Your task to perform on an android device: Show me popular games on the Play Store Image 0: 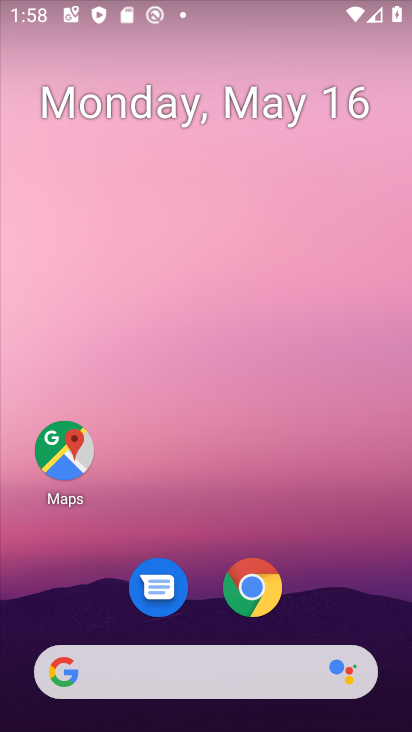
Step 0: drag from (340, 673) to (324, 210)
Your task to perform on an android device: Show me popular games on the Play Store Image 1: 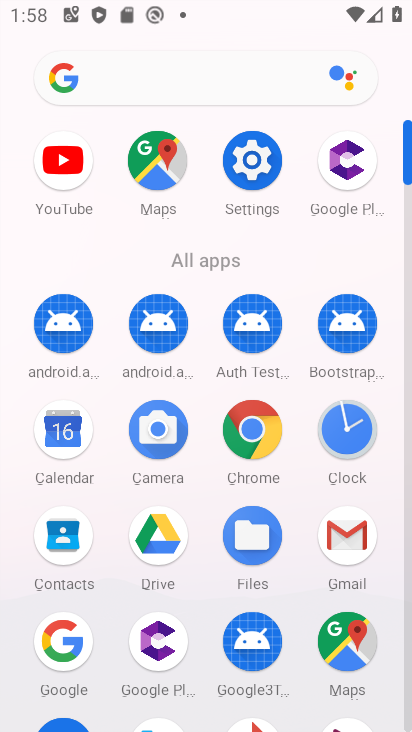
Step 1: drag from (194, 526) to (168, 83)
Your task to perform on an android device: Show me popular games on the Play Store Image 2: 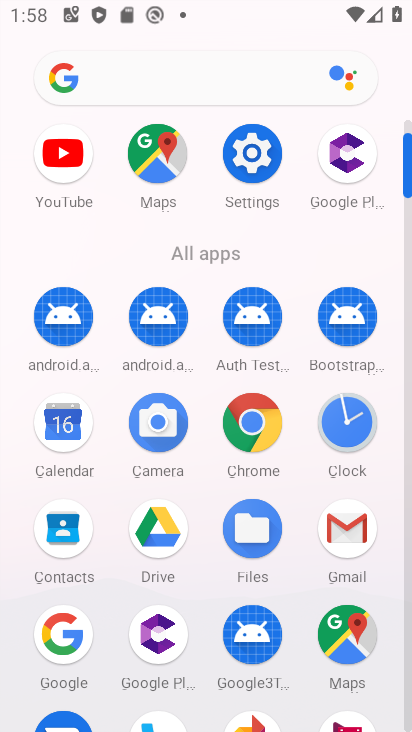
Step 2: drag from (197, 576) to (253, 28)
Your task to perform on an android device: Show me popular games on the Play Store Image 3: 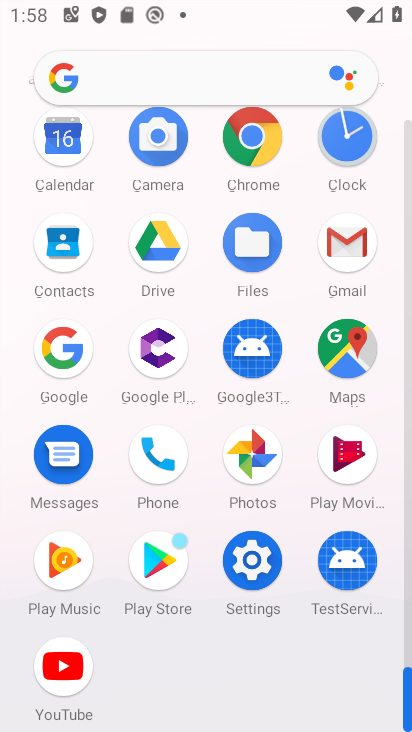
Step 3: click (151, 569)
Your task to perform on an android device: Show me popular games on the Play Store Image 4: 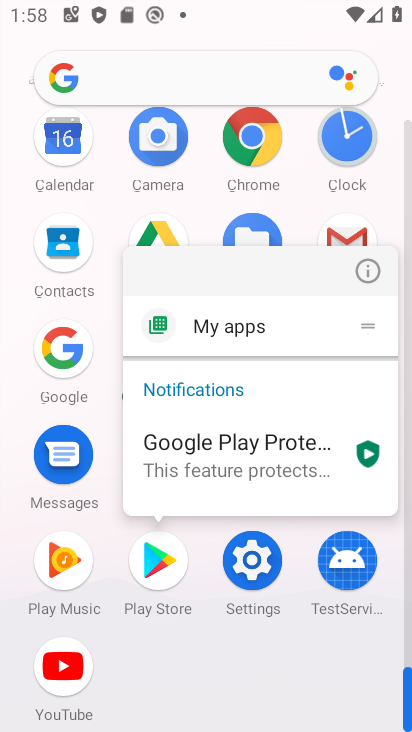
Step 4: click (151, 568)
Your task to perform on an android device: Show me popular games on the Play Store Image 5: 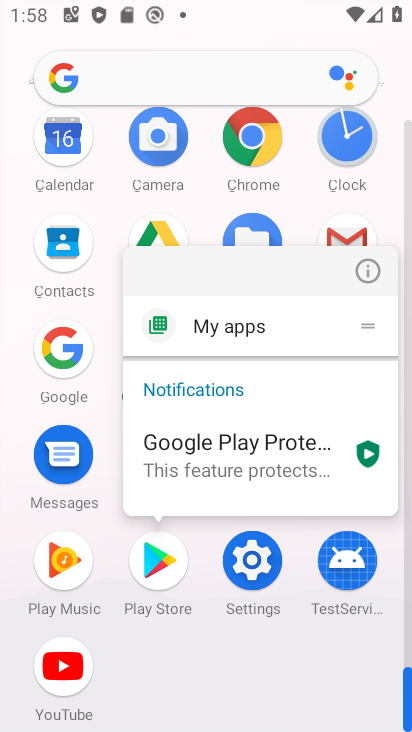
Step 5: click (151, 567)
Your task to perform on an android device: Show me popular games on the Play Store Image 6: 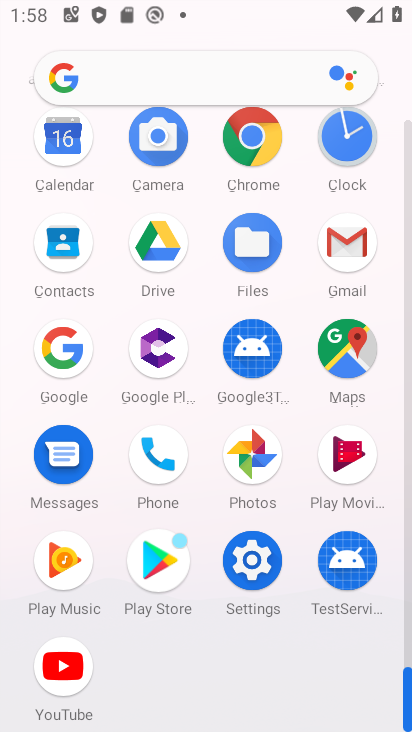
Step 6: click (151, 567)
Your task to perform on an android device: Show me popular games on the Play Store Image 7: 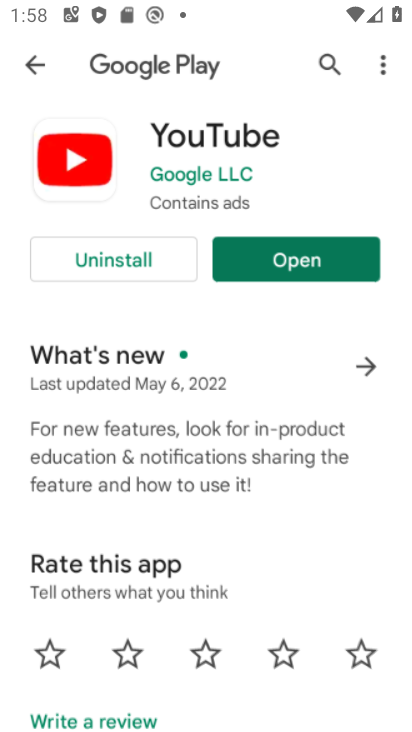
Step 7: click (151, 567)
Your task to perform on an android device: Show me popular games on the Play Store Image 8: 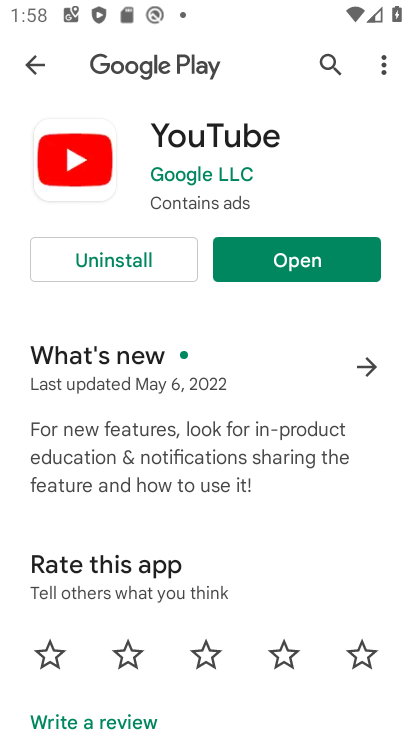
Step 8: click (277, 254)
Your task to perform on an android device: Show me popular games on the Play Store Image 9: 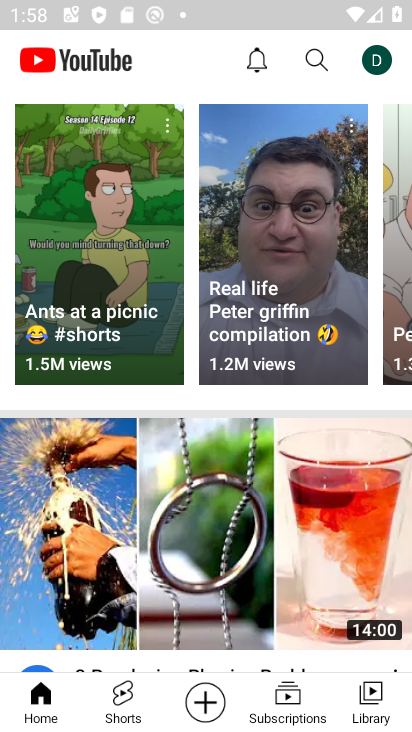
Step 9: drag from (221, 171) to (196, 102)
Your task to perform on an android device: Show me popular games on the Play Store Image 10: 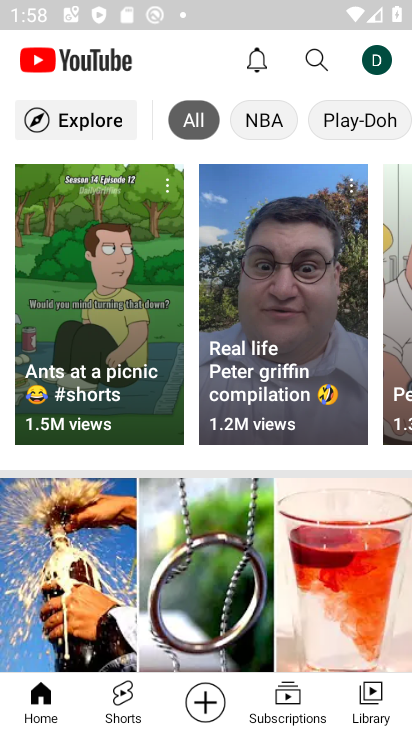
Step 10: drag from (240, 413) to (316, 184)
Your task to perform on an android device: Show me popular games on the Play Store Image 11: 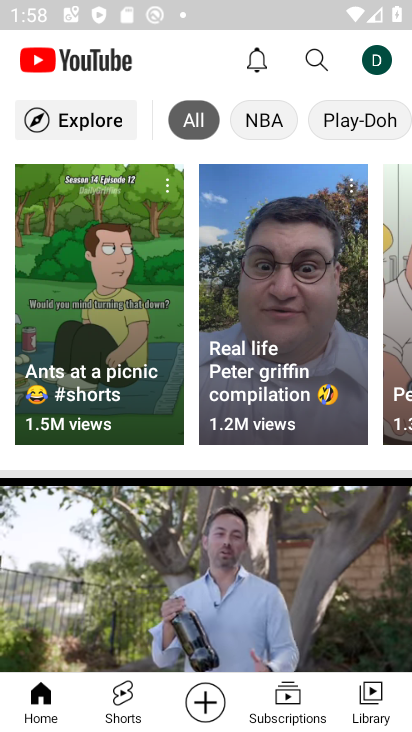
Step 11: drag from (307, 371) to (302, 186)
Your task to perform on an android device: Show me popular games on the Play Store Image 12: 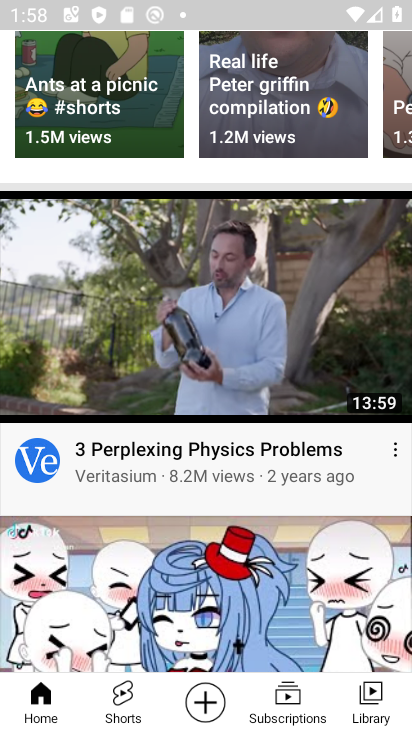
Step 12: drag from (279, 281) to (266, 108)
Your task to perform on an android device: Show me popular games on the Play Store Image 13: 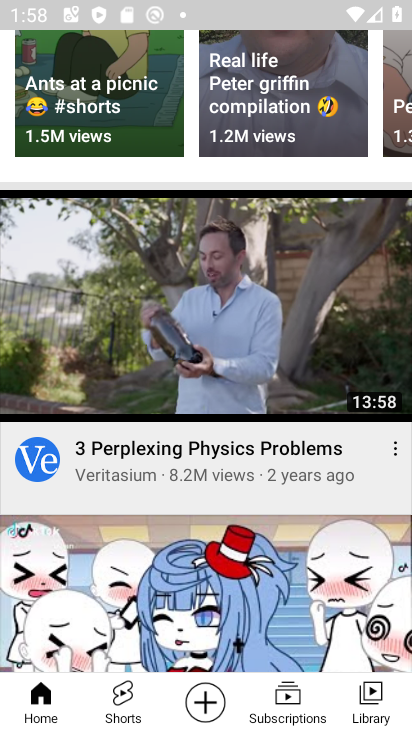
Step 13: drag from (228, 253) to (238, 104)
Your task to perform on an android device: Show me popular games on the Play Store Image 14: 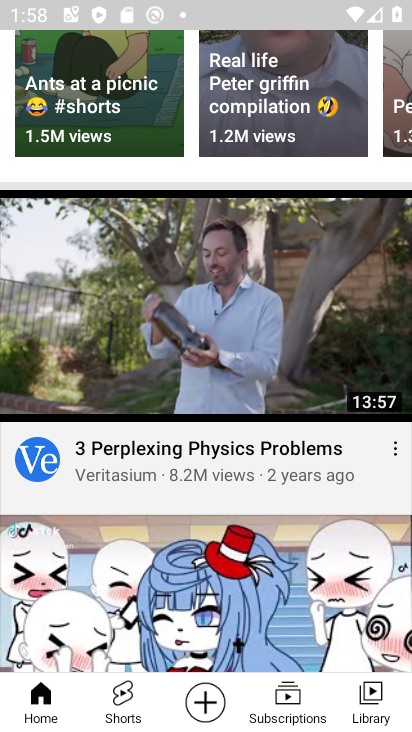
Step 14: drag from (193, 361) to (190, 196)
Your task to perform on an android device: Show me popular games on the Play Store Image 15: 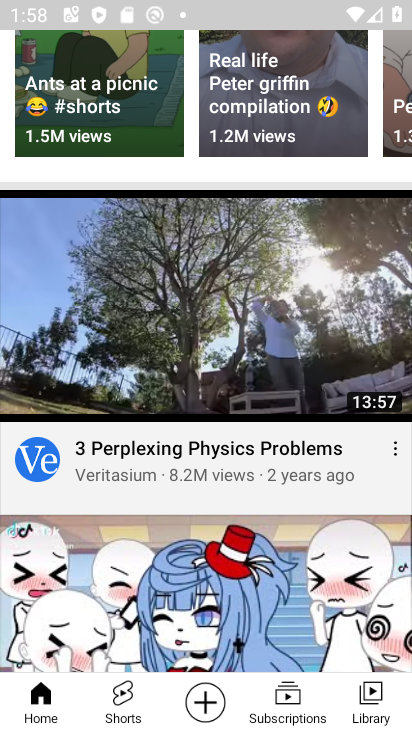
Step 15: click (203, 108)
Your task to perform on an android device: Show me popular games on the Play Store Image 16: 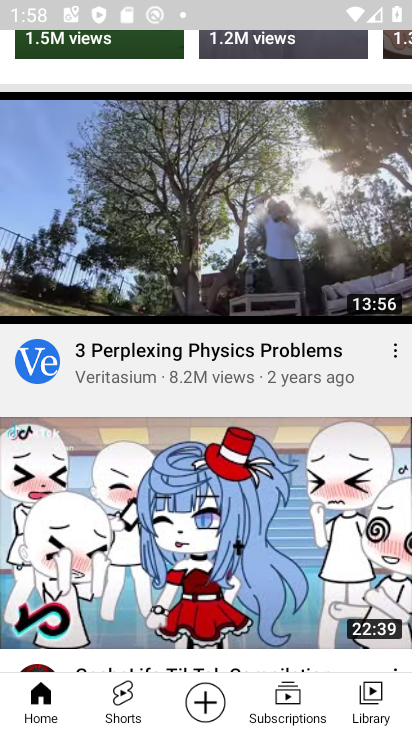
Step 16: task complete